Your task to perform on an android device: Go to network settings Image 0: 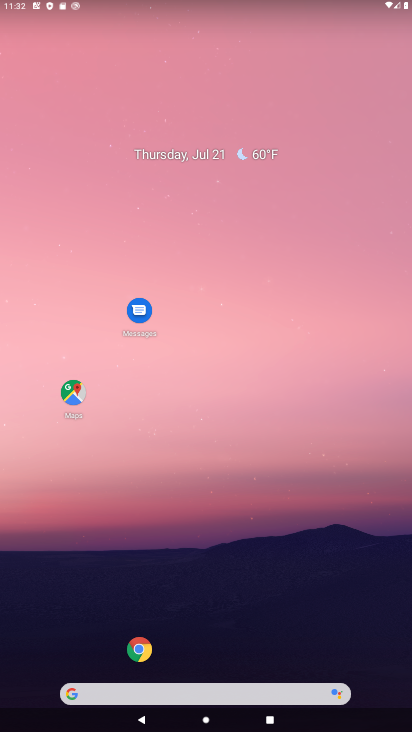
Step 0: drag from (103, 469) to (199, 195)
Your task to perform on an android device: Go to network settings Image 1: 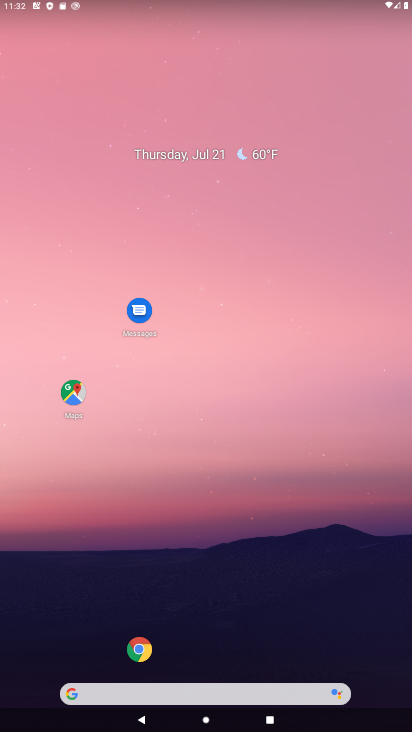
Step 1: drag from (37, 688) to (324, 135)
Your task to perform on an android device: Go to network settings Image 2: 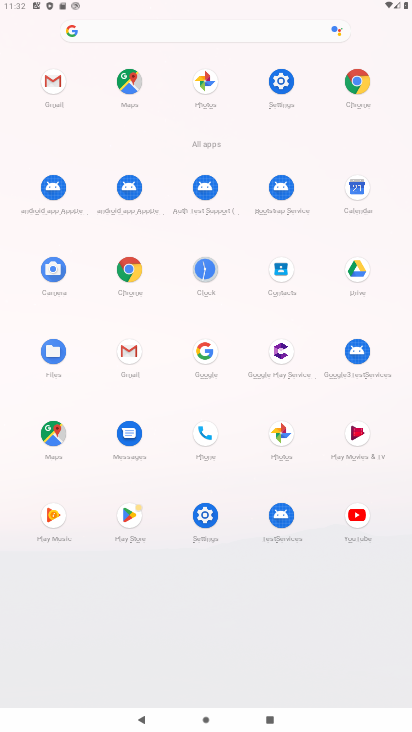
Step 2: click (208, 512)
Your task to perform on an android device: Go to network settings Image 3: 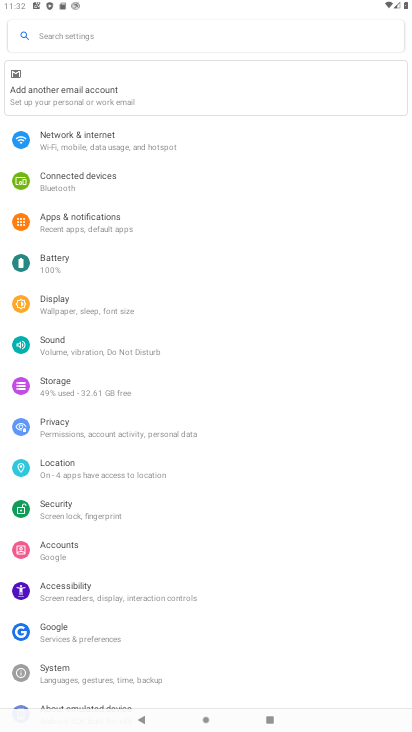
Step 3: click (76, 138)
Your task to perform on an android device: Go to network settings Image 4: 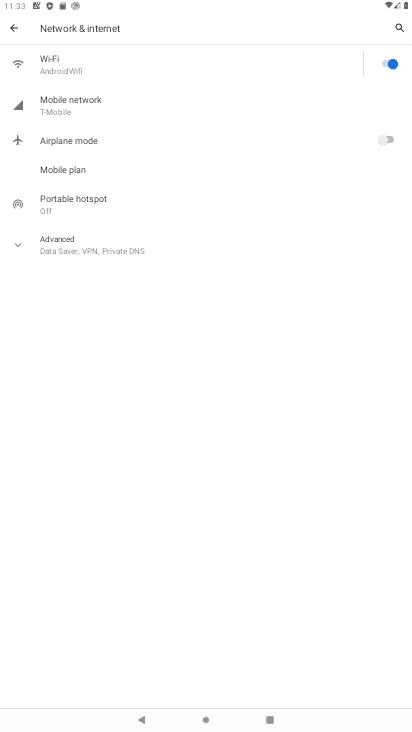
Step 4: task complete